Your task to perform on an android device: Open Google Chrome and click the shortcut for Amazon.com Image 0: 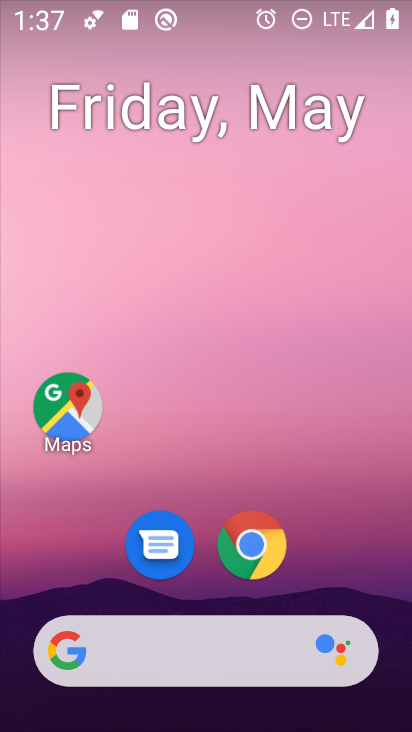
Step 0: drag from (366, 580) to (349, 253)
Your task to perform on an android device: Open Google Chrome and click the shortcut for Amazon.com Image 1: 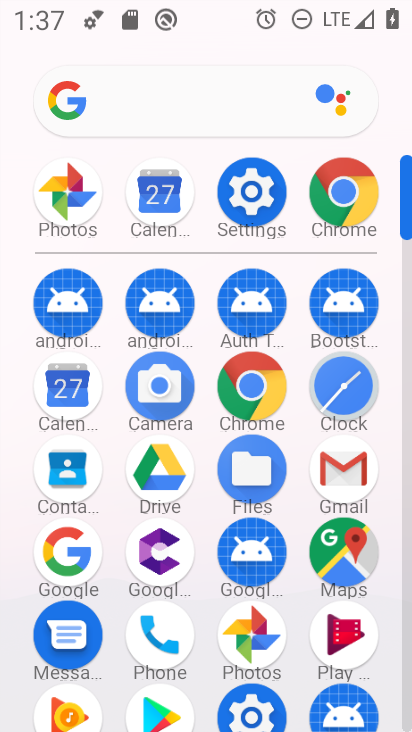
Step 1: click (257, 370)
Your task to perform on an android device: Open Google Chrome and click the shortcut for Amazon.com Image 2: 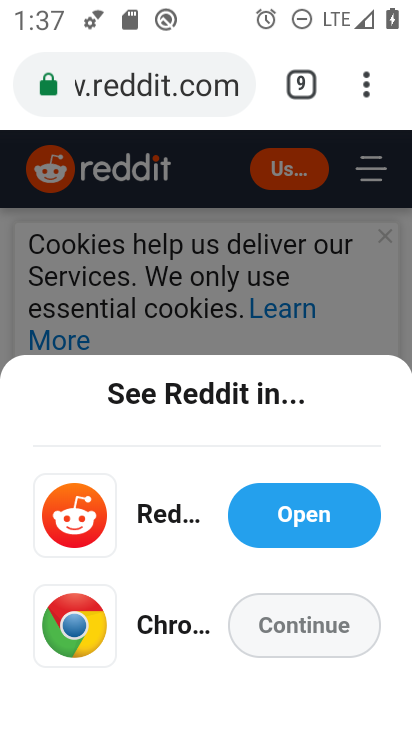
Step 2: click (371, 80)
Your task to perform on an android device: Open Google Chrome and click the shortcut for Amazon.com Image 3: 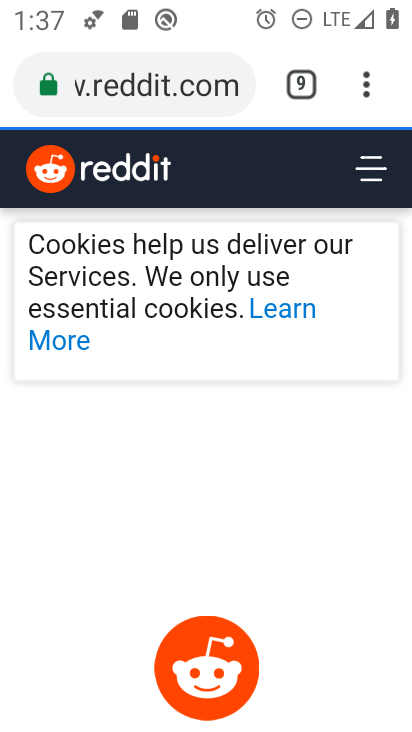
Step 3: click (362, 69)
Your task to perform on an android device: Open Google Chrome and click the shortcut for Amazon.com Image 4: 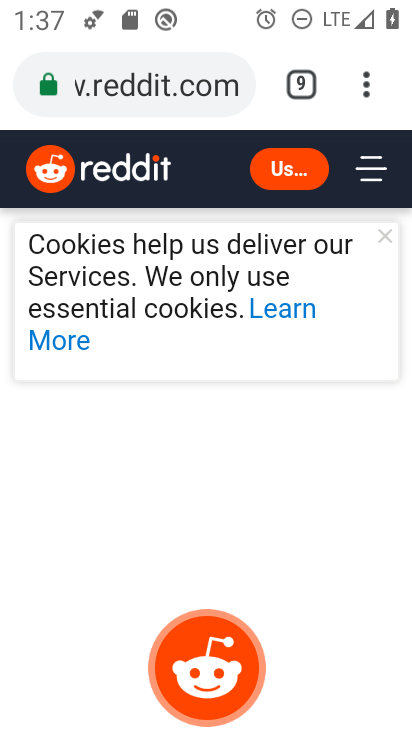
Step 4: click (352, 97)
Your task to perform on an android device: Open Google Chrome and click the shortcut for Amazon.com Image 5: 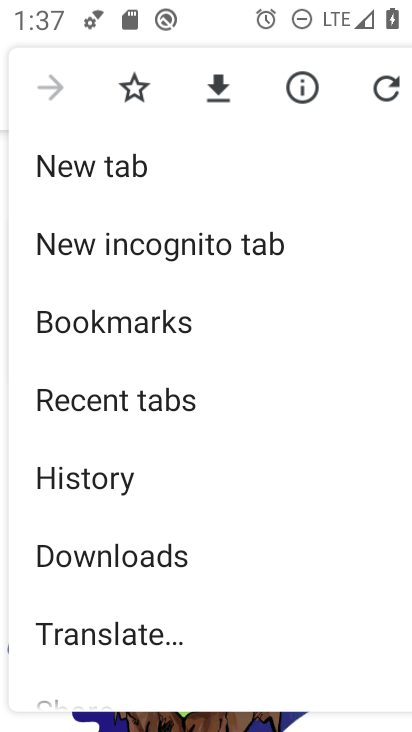
Step 5: click (66, 187)
Your task to perform on an android device: Open Google Chrome and click the shortcut for Amazon.com Image 6: 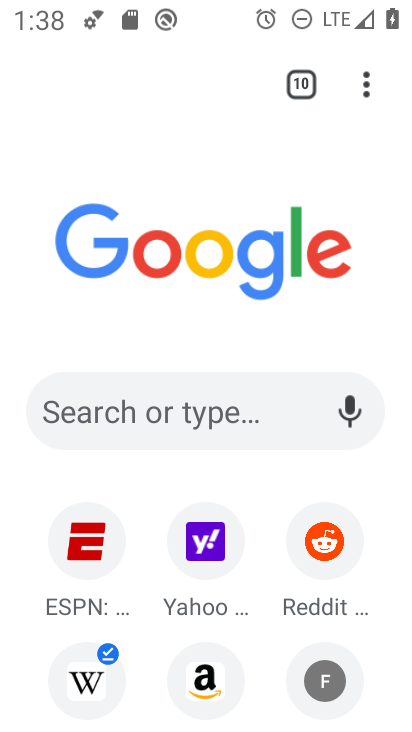
Step 6: drag from (347, 591) to (370, 265)
Your task to perform on an android device: Open Google Chrome and click the shortcut for Amazon.com Image 7: 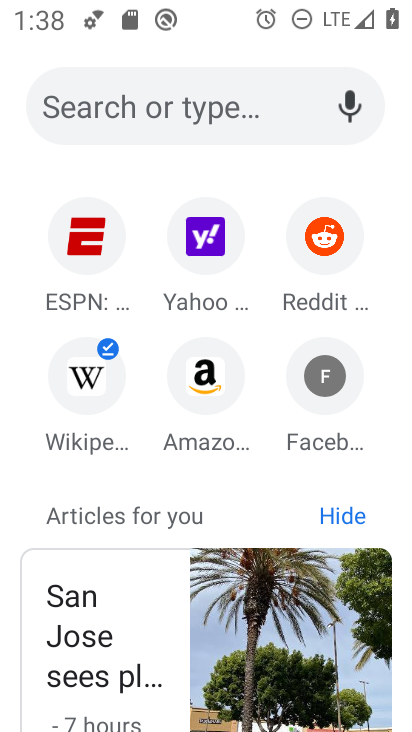
Step 7: click (198, 363)
Your task to perform on an android device: Open Google Chrome and click the shortcut for Amazon.com Image 8: 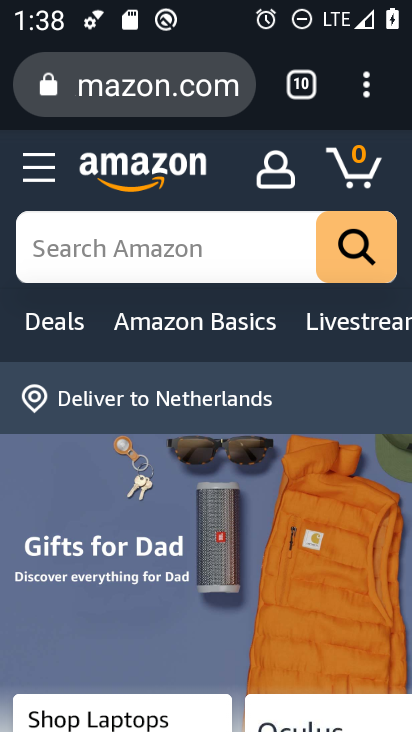
Step 8: task complete